Your task to perform on an android device: turn notification dots off Image 0: 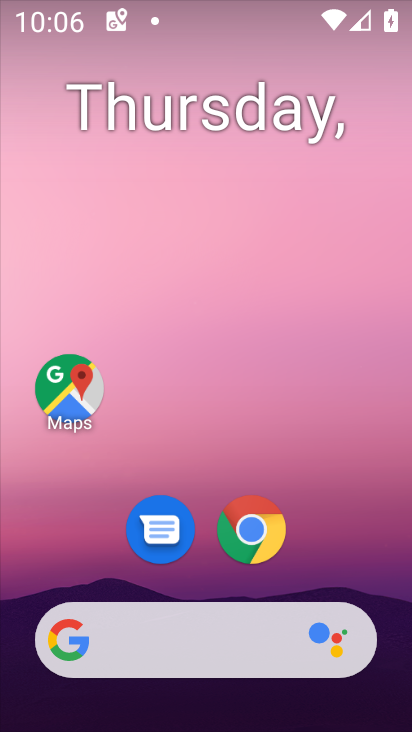
Step 0: drag from (293, 531) to (294, 38)
Your task to perform on an android device: turn notification dots off Image 1: 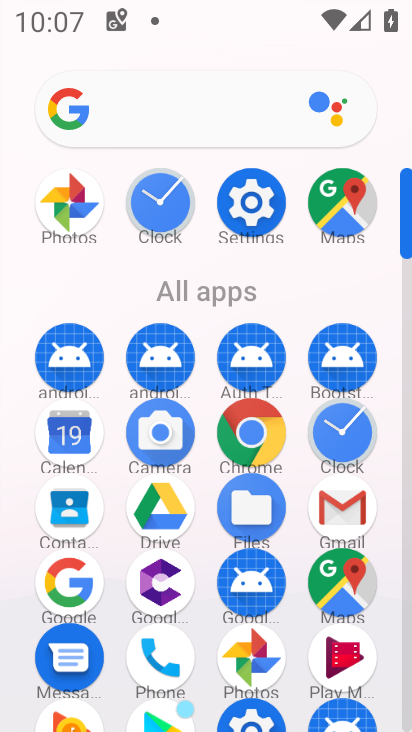
Step 1: click (254, 205)
Your task to perform on an android device: turn notification dots off Image 2: 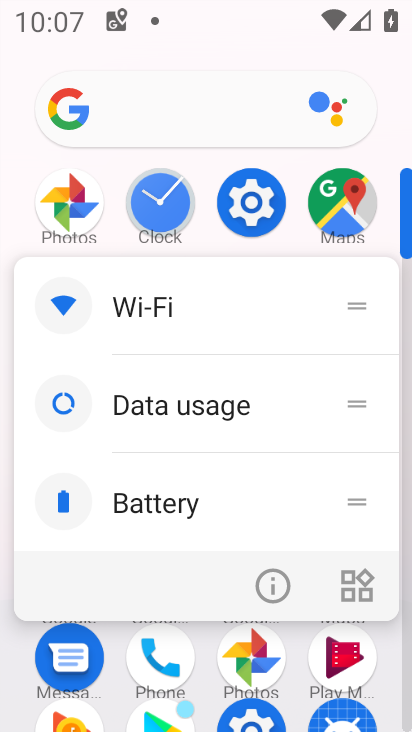
Step 2: click (246, 224)
Your task to perform on an android device: turn notification dots off Image 3: 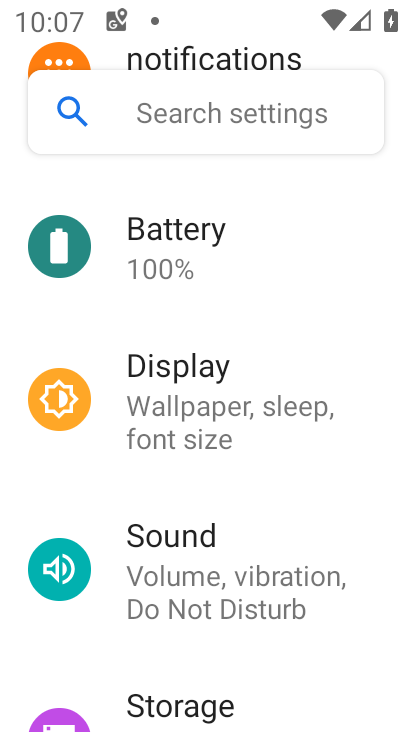
Step 3: drag from (232, 671) to (244, 731)
Your task to perform on an android device: turn notification dots off Image 4: 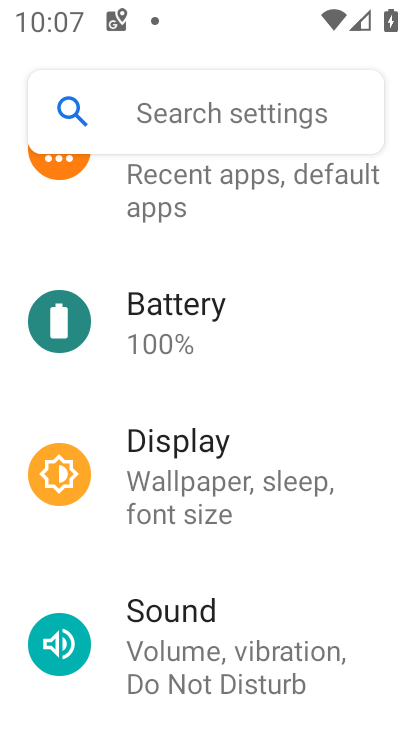
Step 4: drag from (198, 327) to (214, 438)
Your task to perform on an android device: turn notification dots off Image 5: 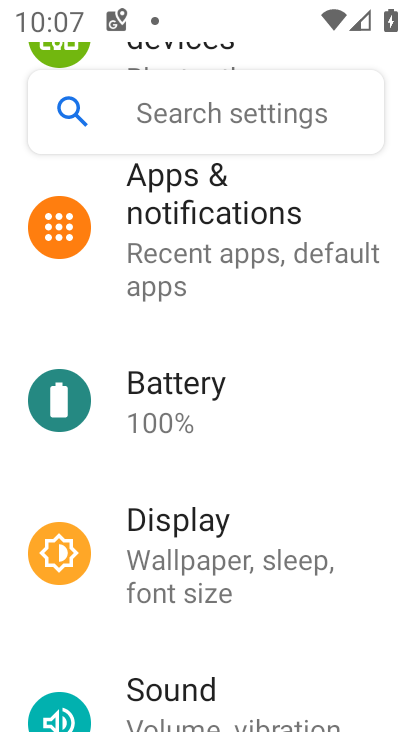
Step 5: click (190, 210)
Your task to perform on an android device: turn notification dots off Image 6: 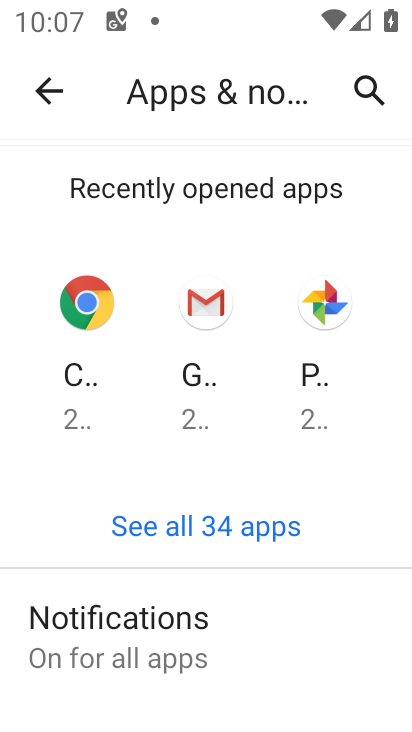
Step 6: click (194, 640)
Your task to perform on an android device: turn notification dots off Image 7: 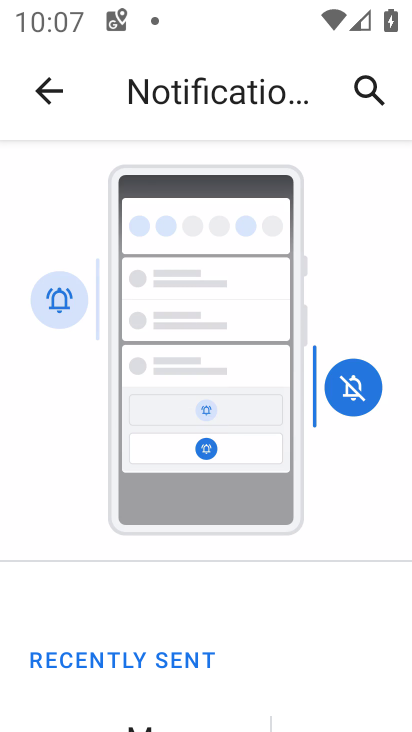
Step 7: drag from (229, 684) to (215, 294)
Your task to perform on an android device: turn notification dots off Image 8: 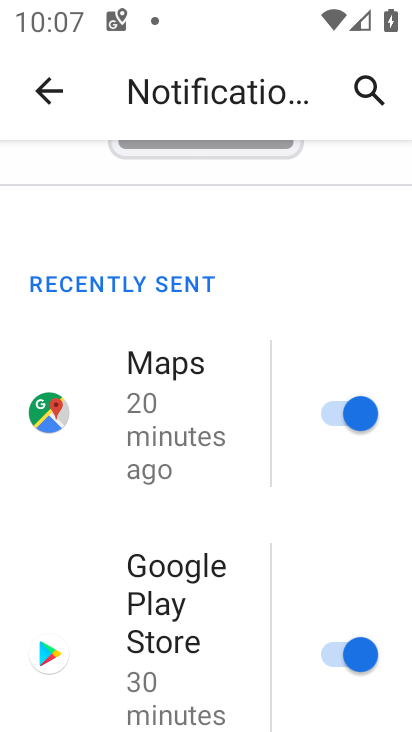
Step 8: drag from (159, 619) to (136, 267)
Your task to perform on an android device: turn notification dots off Image 9: 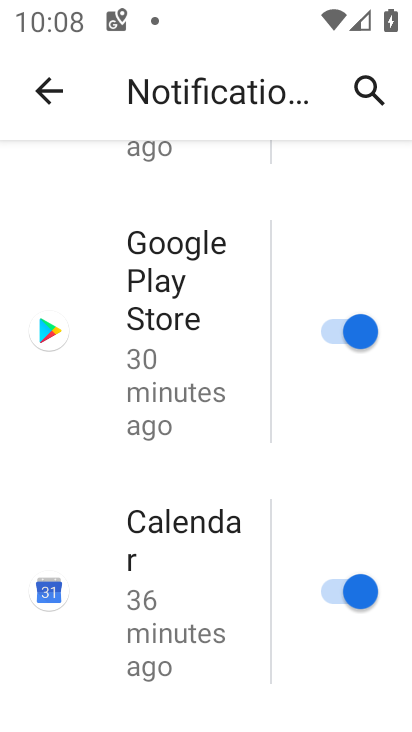
Step 9: drag from (176, 637) to (164, 292)
Your task to perform on an android device: turn notification dots off Image 10: 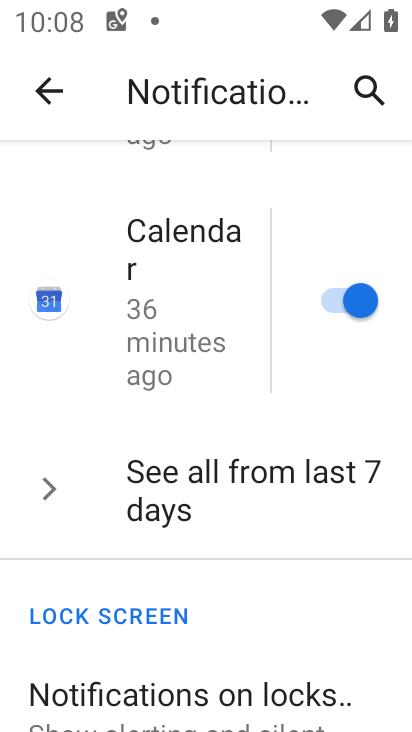
Step 10: drag from (210, 645) to (211, 315)
Your task to perform on an android device: turn notification dots off Image 11: 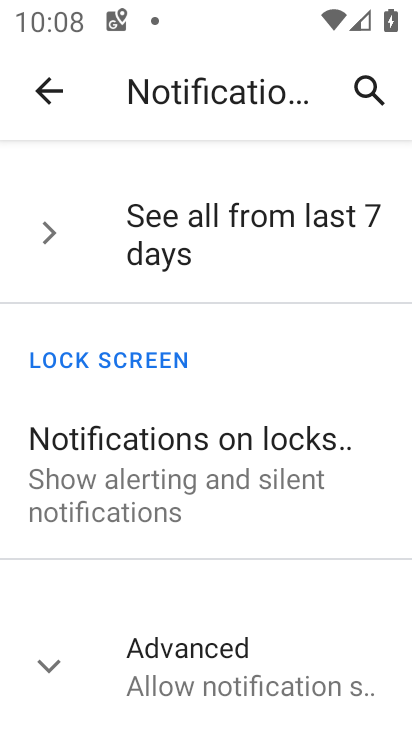
Step 11: click (203, 670)
Your task to perform on an android device: turn notification dots off Image 12: 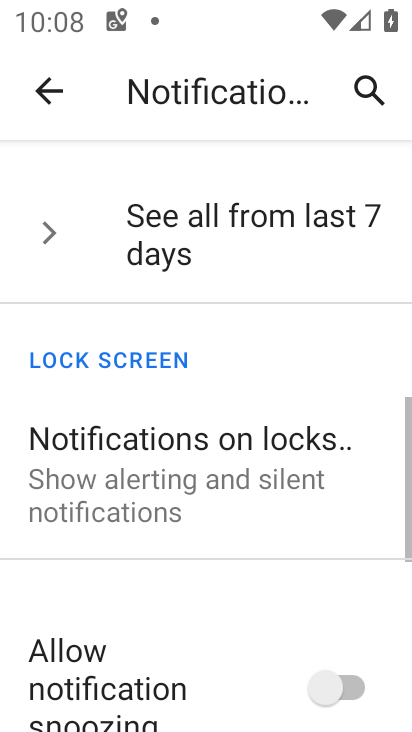
Step 12: drag from (202, 685) to (229, 147)
Your task to perform on an android device: turn notification dots off Image 13: 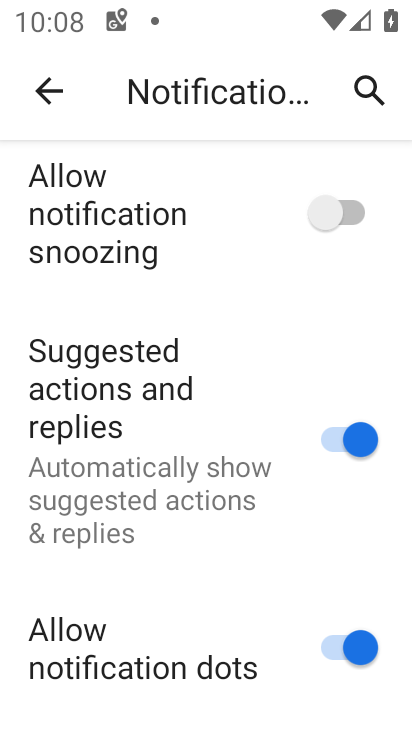
Step 13: click (334, 651)
Your task to perform on an android device: turn notification dots off Image 14: 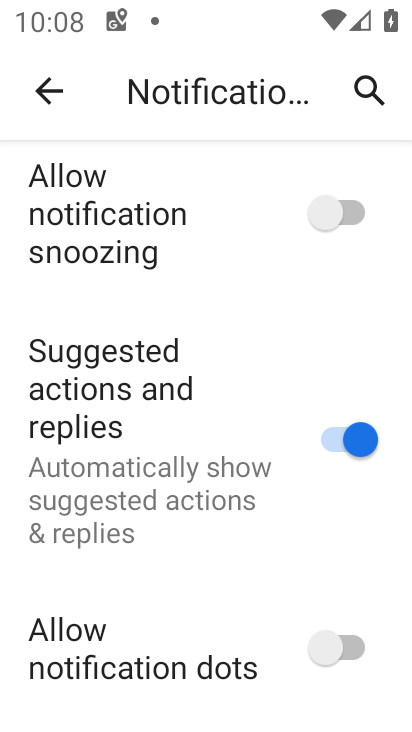
Step 14: task complete